Your task to perform on an android device: Open accessibility settings Image 0: 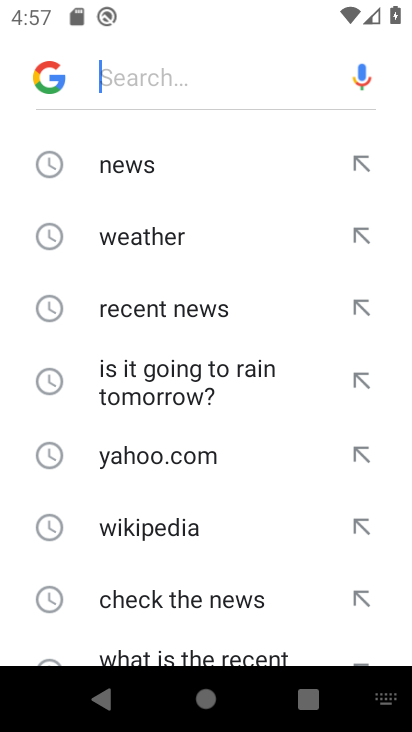
Step 0: press home button
Your task to perform on an android device: Open accessibility settings Image 1: 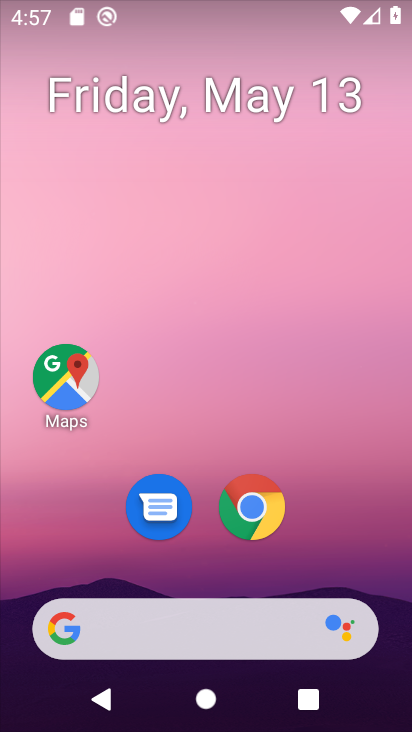
Step 1: drag from (334, 552) to (209, 83)
Your task to perform on an android device: Open accessibility settings Image 2: 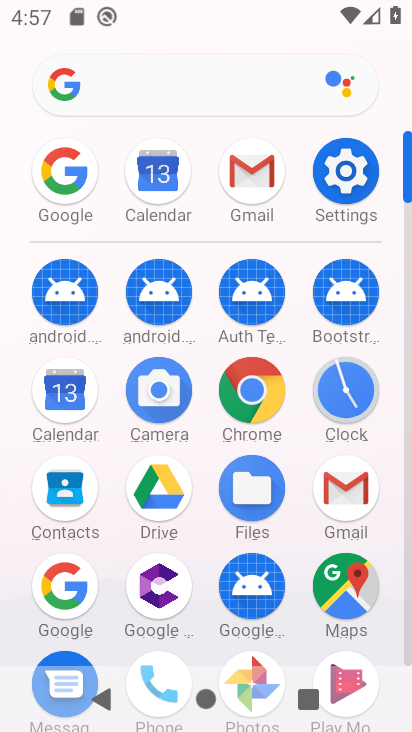
Step 2: click (337, 172)
Your task to perform on an android device: Open accessibility settings Image 3: 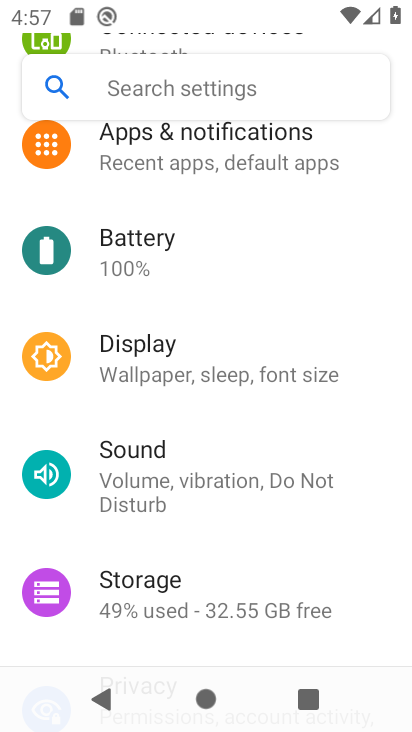
Step 3: drag from (238, 573) to (246, 202)
Your task to perform on an android device: Open accessibility settings Image 4: 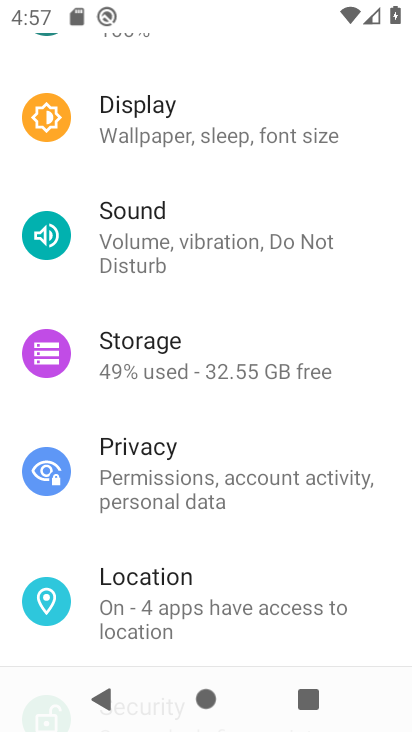
Step 4: drag from (213, 371) to (208, 133)
Your task to perform on an android device: Open accessibility settings Image 5: 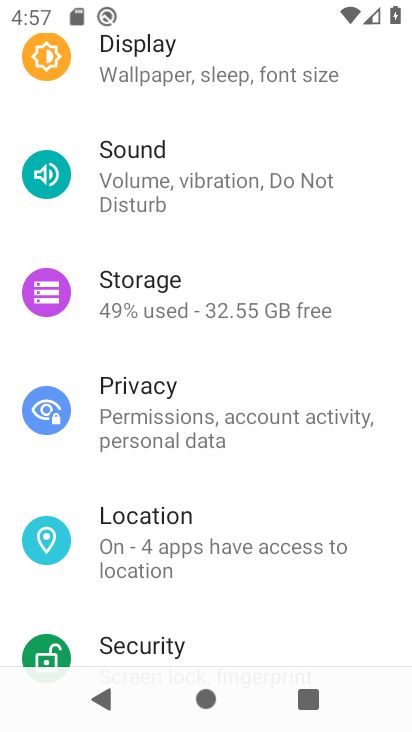
Step 5: drag from (187, 482) to (193, 131)
Your task to perform on an android device: Open accessibility settings Image 6: 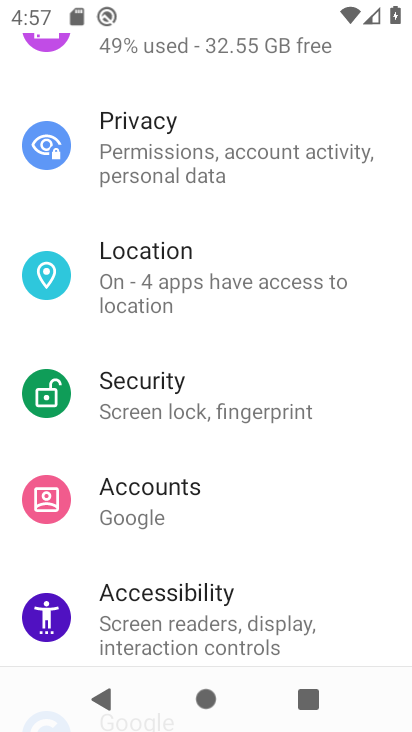
Step 6: click (170, 609)
Your task to perform on an android device: Open accessibility settings Image 7: 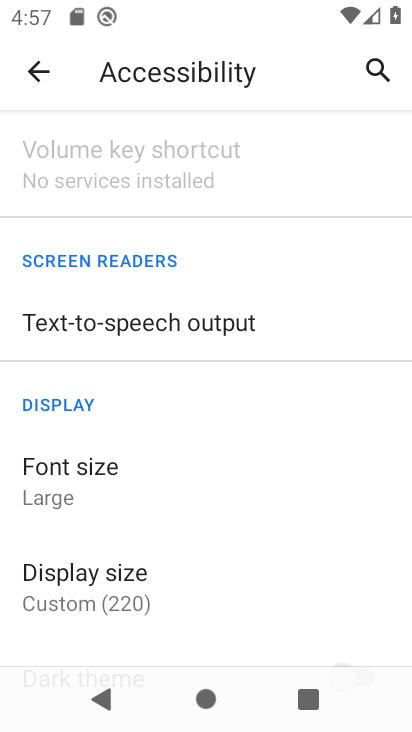
Step 7: task complete